Your task to perform on an android device: toggle javascript in the chrome app Image 0: 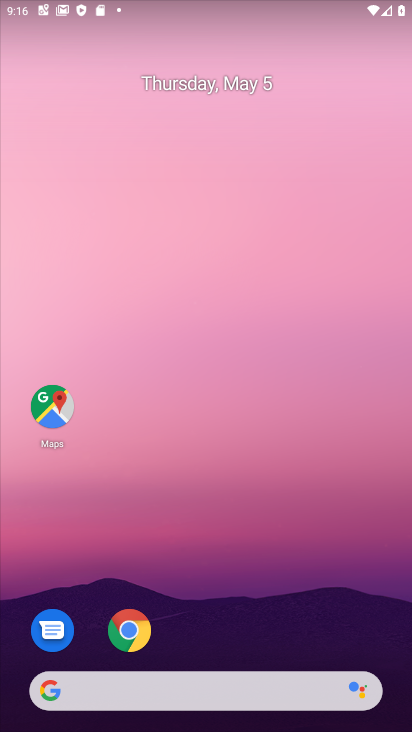
Step 0: click (129, 631)
Your task to perform on an android device: toggle javascript in the chrome app Image 1: 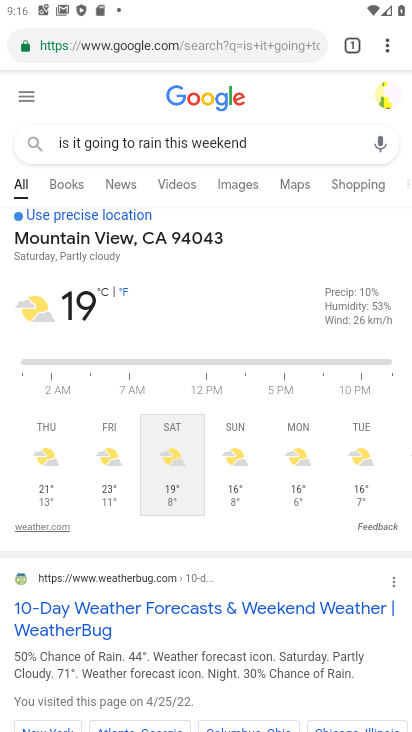
Step 1: drag from (387, 45) to (234, 505)
Your task to perform on an android device: toggle javascript in the chrome app Image 2: 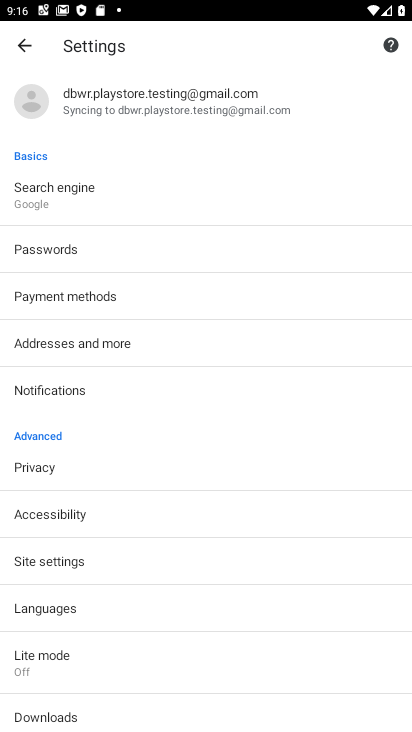
Step 2: click (40, 560)
Your task to perform on an android device: toggle javascript in the chrome app Image 3: 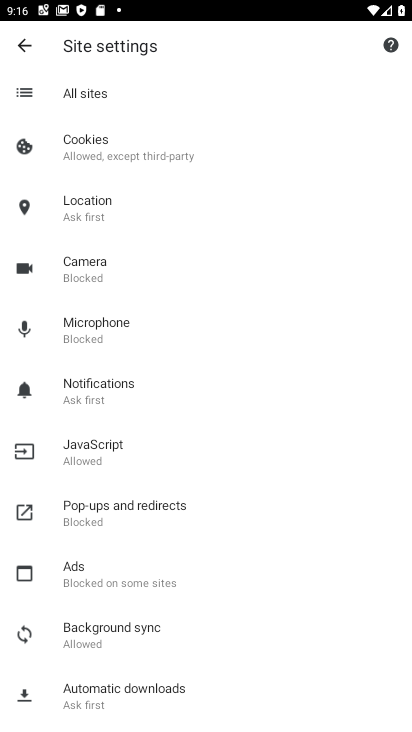
Step 3: click (112, 454)
Your task to perform on an android device: toggle javascript in the chrome app Image 4: 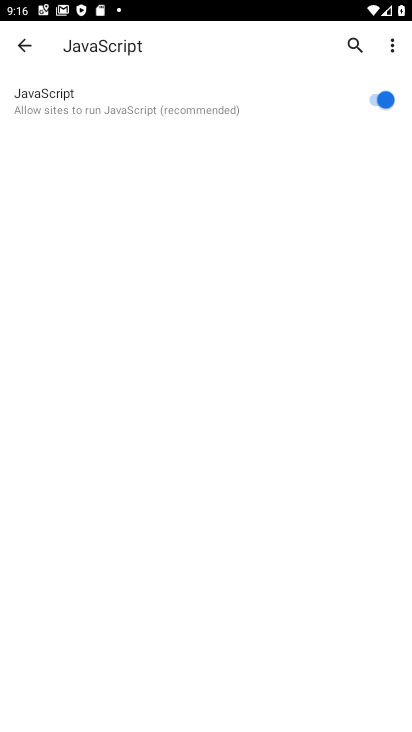
Step 4: click (382, 102)
Your task to perform on an android device: toggle javascript in the chrome app Image 5: 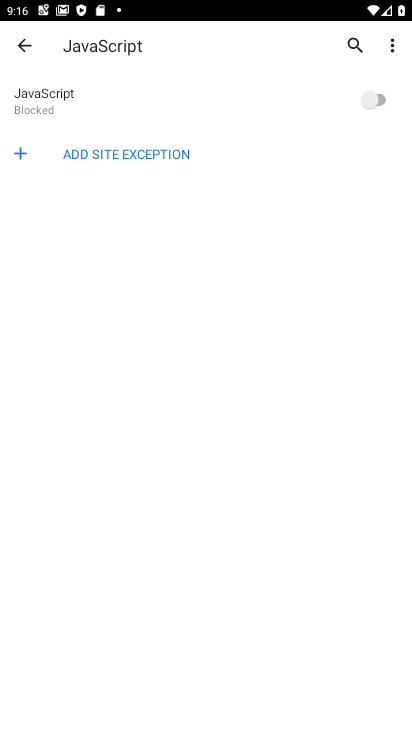
Step 5: task complete